Your task to perform on an android device: turn on airplane mode Image 0: 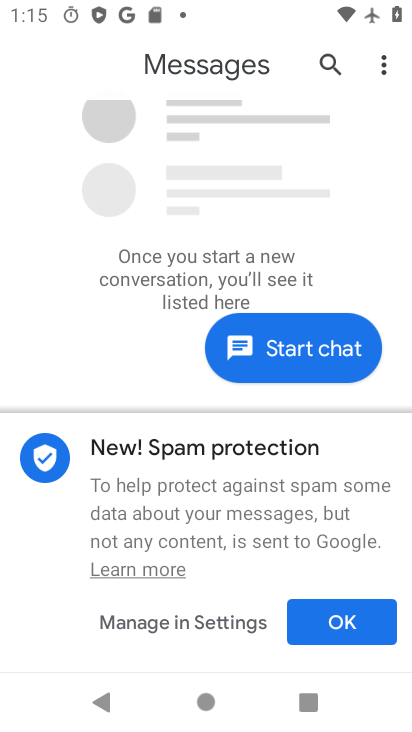
Step 0: press home button
Your task to perform on an android device: turn on airplane mode Image 1: 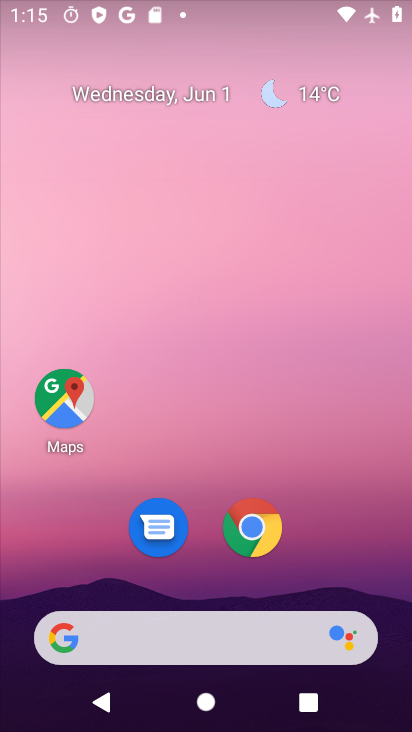
Step 1: drag from (154, 635) to (207, 170)
Your task to perform on an android device: turn on airplane mode Image 2: 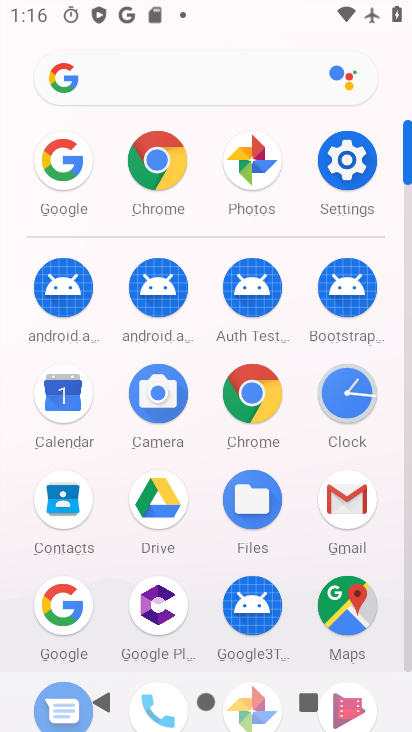
Step 2: click (345, 179)
Your task to perform on an android device: turn on airplane mode Image 3: 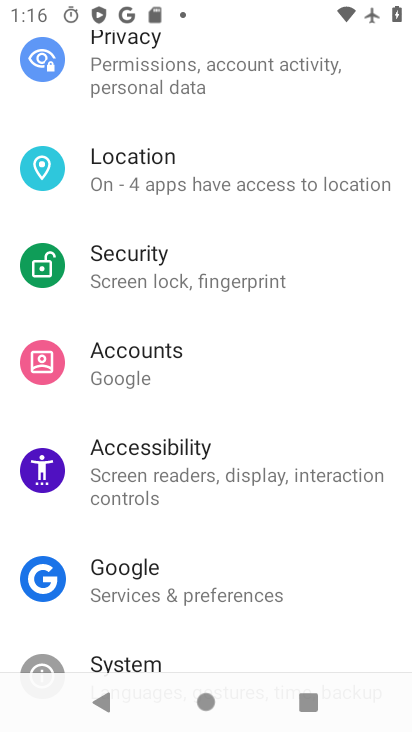
Step 3: drag from (250, 315) to (230, 695)
Your task to perform on an android device: turn on airplane mode Image 4: 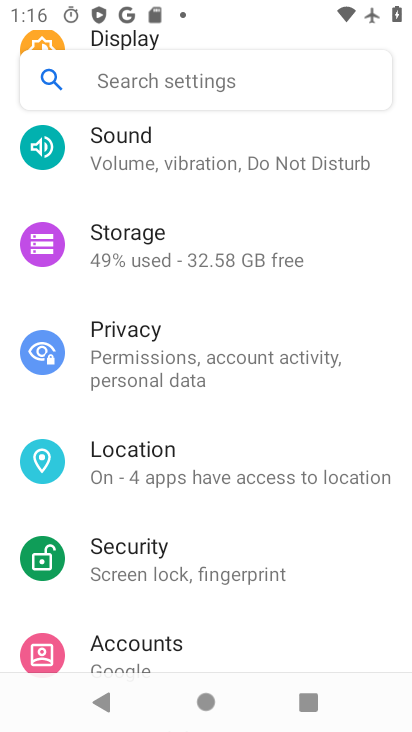
Step 4: drag from (208, 391) to (146, 730)
Your task to perform on an android device: turn on airplane mode Image 5: 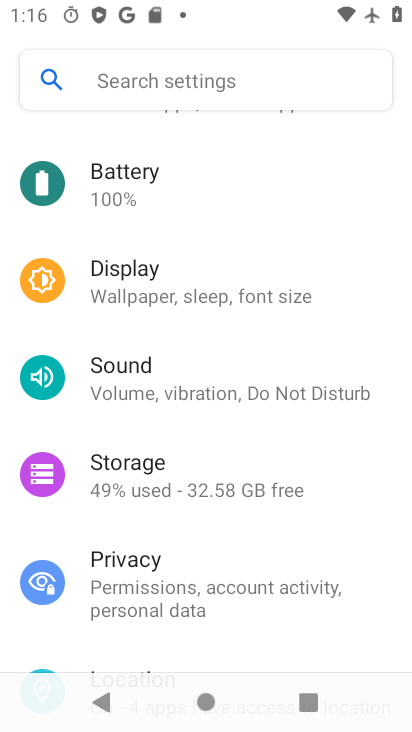
Step 5: drag from (197, 311) to (195, 595)
Your task to perform on an android device: turn on airplane mode Image 6: 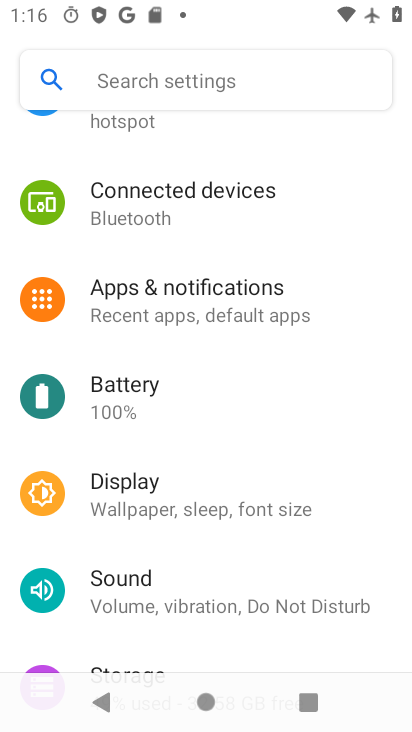
Step 6: drag from (203, 276) to (171, 664)
Your task to perform on an android device: turn on airplane mode Image 7: 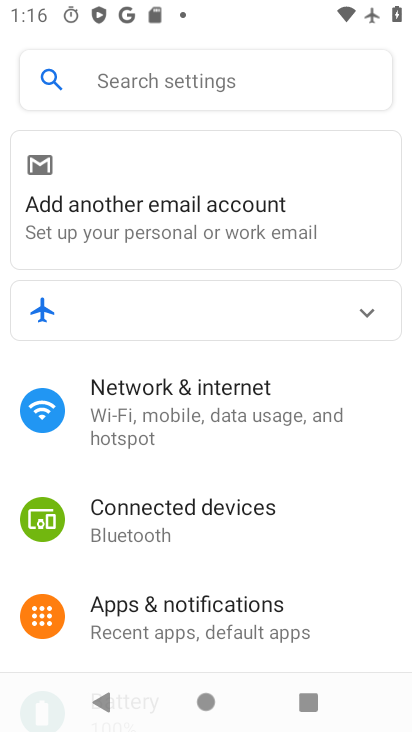
Step 7: click (254, 404)
Your task to perform on an android device: turn on airplane mode Image 8: 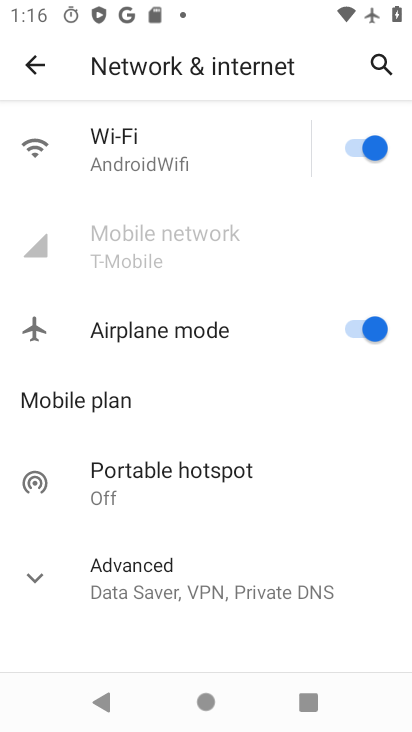
Step 8: task complete